Your task to perform on an android device: change text size in settings app Image 0: 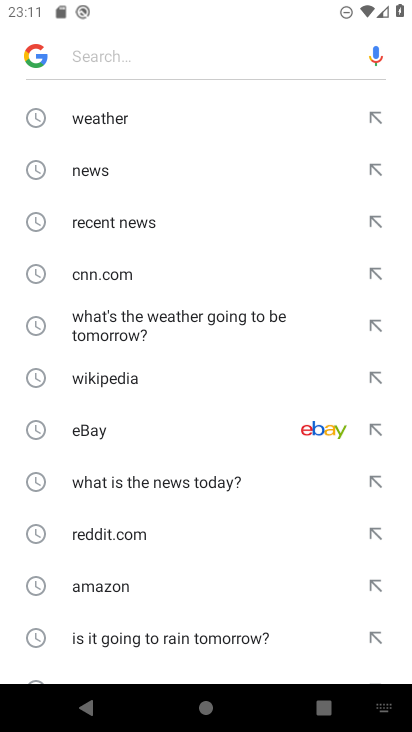
Step 0: press home button
Your task to perform on an android device: change text size in settings app Image 1: 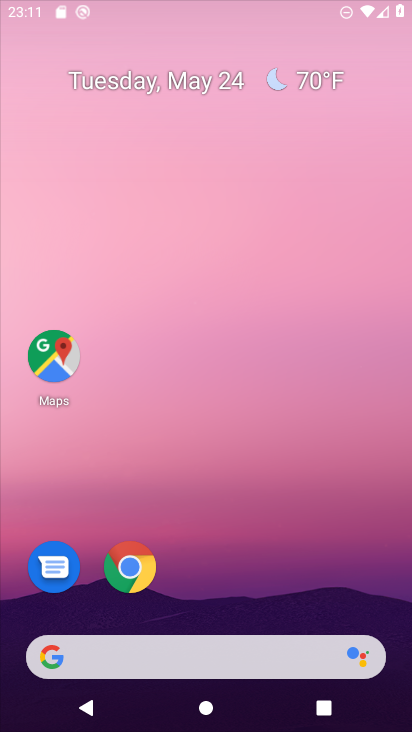
Step 1: drag from (320, 523) to (236, 25)
Your task to perform on an android device: change text size in settings app Image 2: 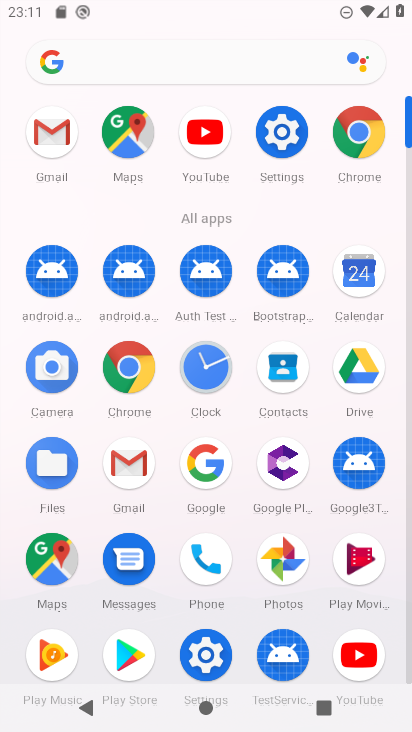
Step 2: click (287, 124)
Your task to perform on an android device: change text size in settings app Image 3: 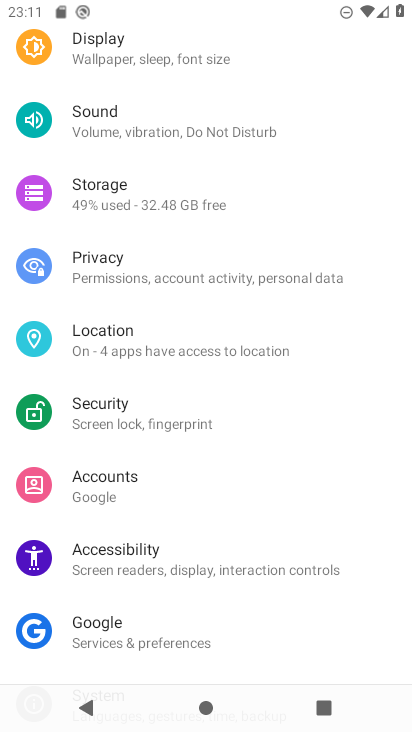
Step 3: click (175, 57)
Your task to perform on an android device: change text size in settings app Image 4: 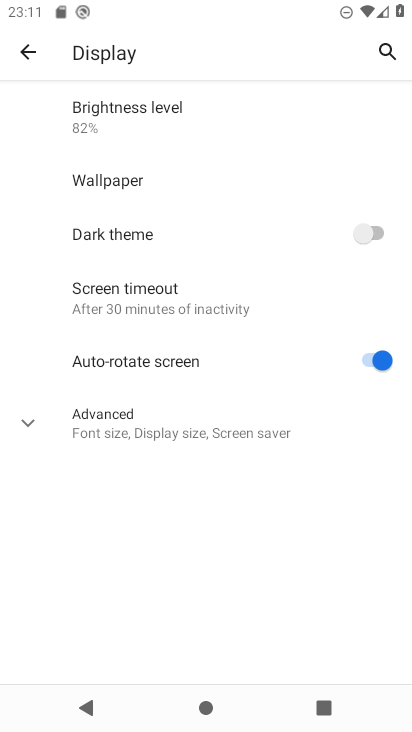
Step 4: click (118, 417)
Your task to perform on an android device: change text size in settings app Image 5: 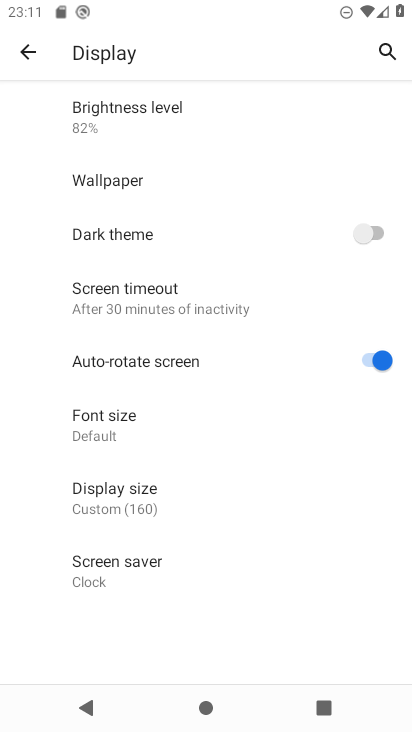
Step 5: click (118, 417)
Your task to perform on an android device: change text size in settings app Image 6: 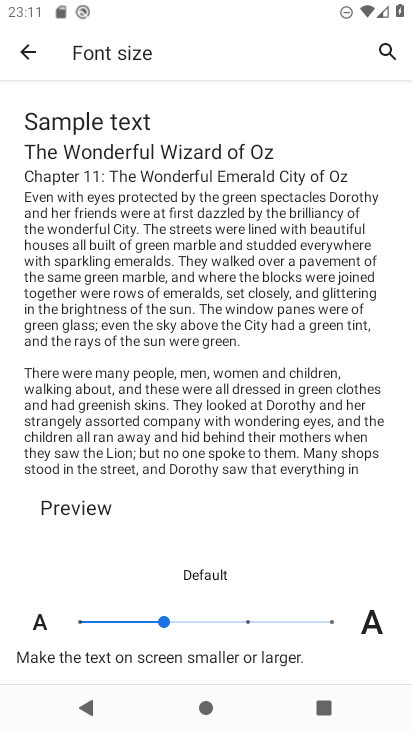
Step 6: click (76, 622)
Your task to perform on an android device: change text size in settings app Image 7: 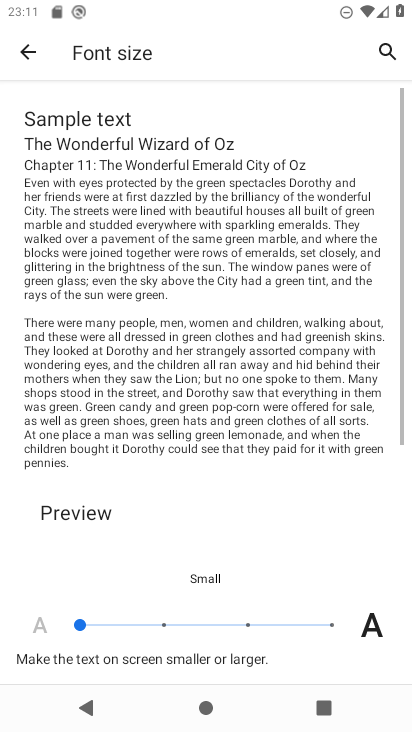
Step 7: task complete